Your task to perform on an android device: Go to Google Image 0: 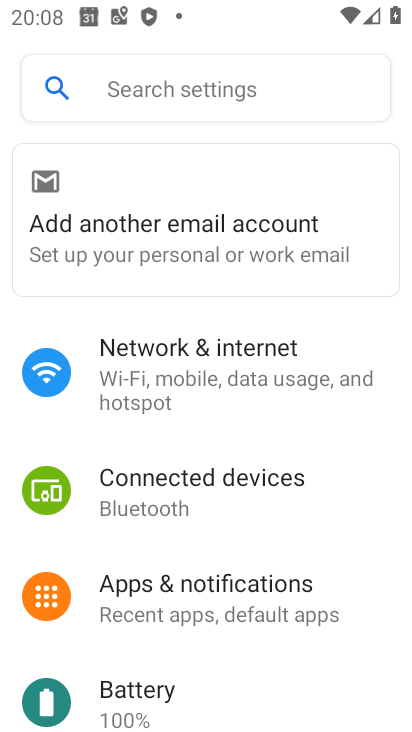
Step 0: press home button
Your task to perform on an android device: Go to Google Image 1: 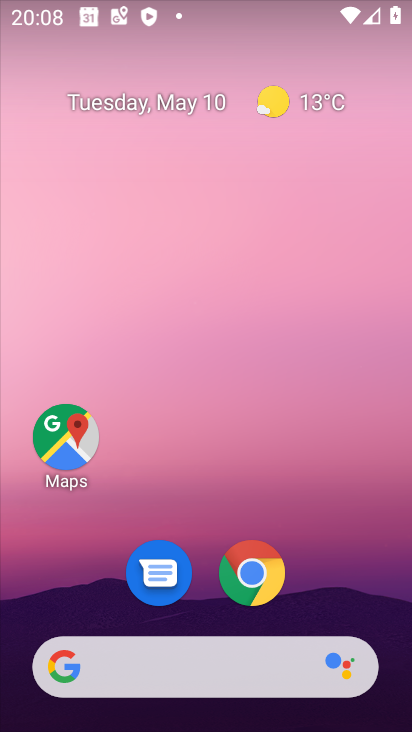
Step 1: drag from (360, 620) to (316, 0)
Your task to perform on an android device: Go to Google Image 2: 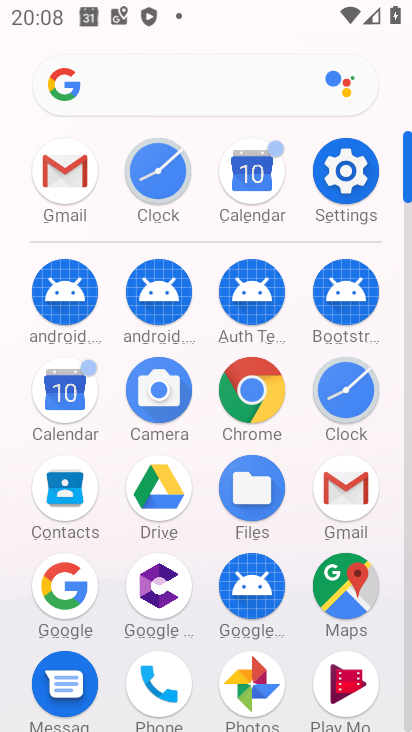
Step 2: click (62, 602)
Your task to perform on an android device: Go to Google Image 3: 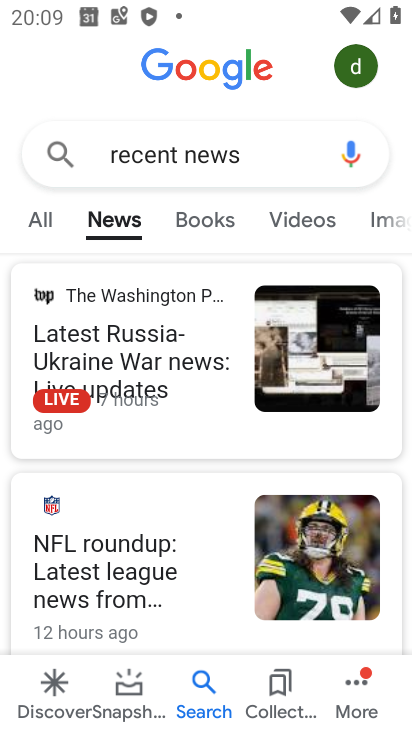
Step 3: task complete